Your task to perform on an android device: Open Android settings Image 0: 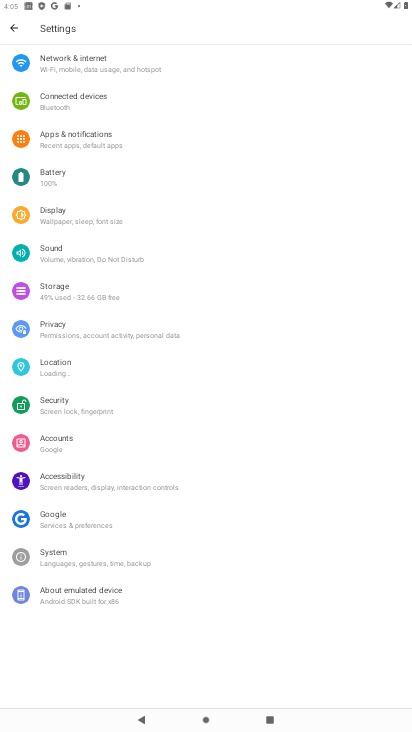
Step 0: task complete